Your task to perform on an android device: Go to settings Image 0: 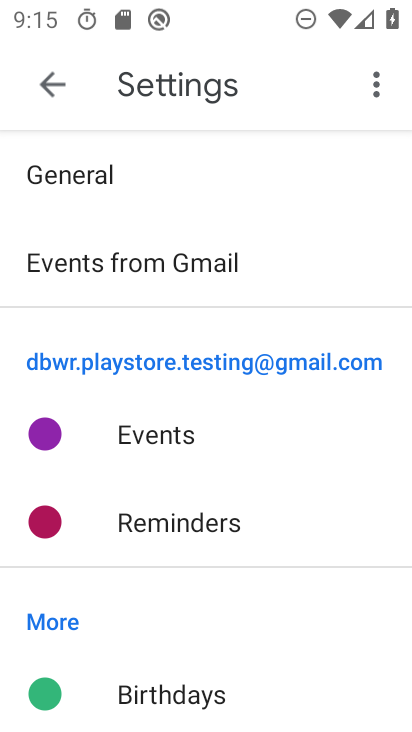
Step 0: press home button
Your task to perform on an android device: Go to settings Image 1: 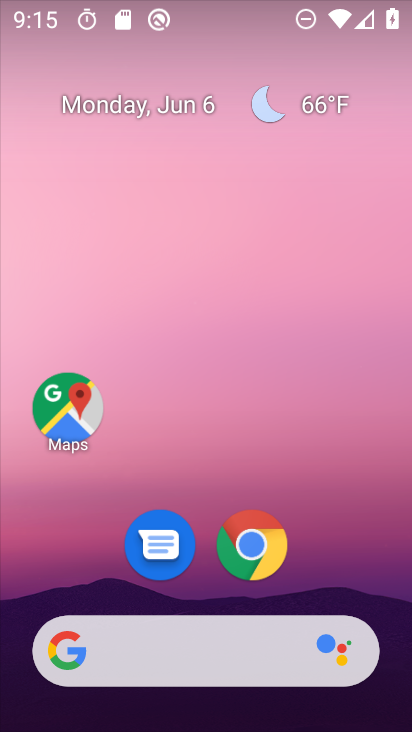
Step 1: drag from (197, 590) to (363, 11)
Your task to perform on an android device: Go to settings Image 2: 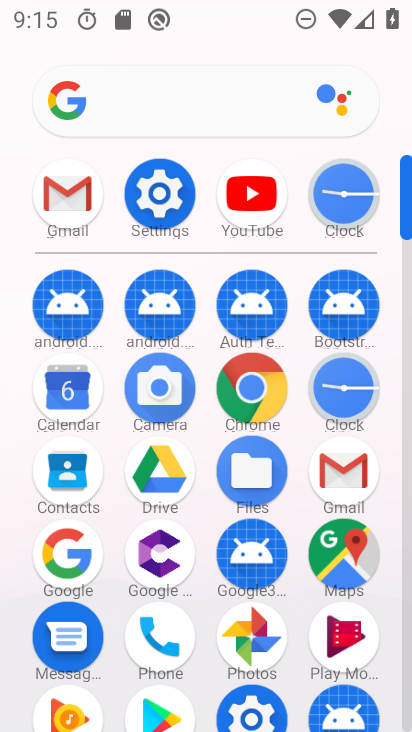
Step 2: click (167, 196)
Your task to perform on an android device: Go to settings Image 3: 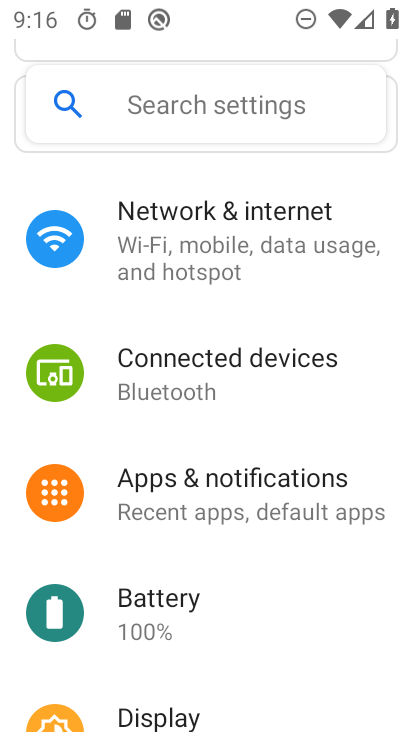
Step 3: task complete